Your task to perform on an android device: Empty the shopping cart on walmart. Search for "logitech g pro" on walmart, select the first entry, add it to the cart, then select checkout. Image 0: 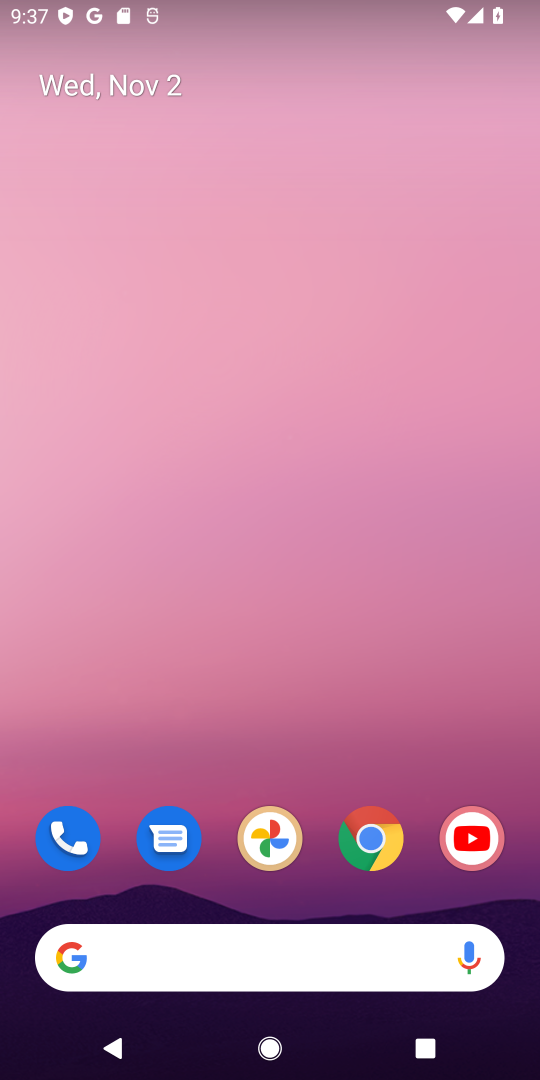
Step 0: click (360, 840)
Your task to perform on an android device: Empty the shopping cart on walmart. Search for "logitech g pro" on walmart, select the first entry, add it to the cart, then select checkout. Image 1: 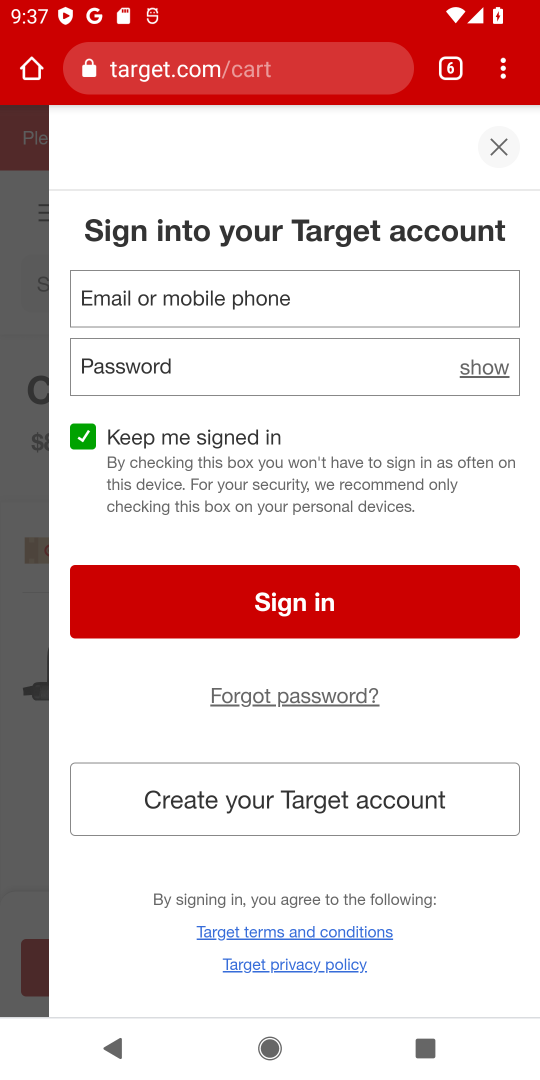
Step 1: click (447, 68)
Your task to perform on an android device: Empty the shopping cart on walmart. Search for "logitech g pro" on walmart, select the first entry, add it to the cart, then select checkout. Image 2: 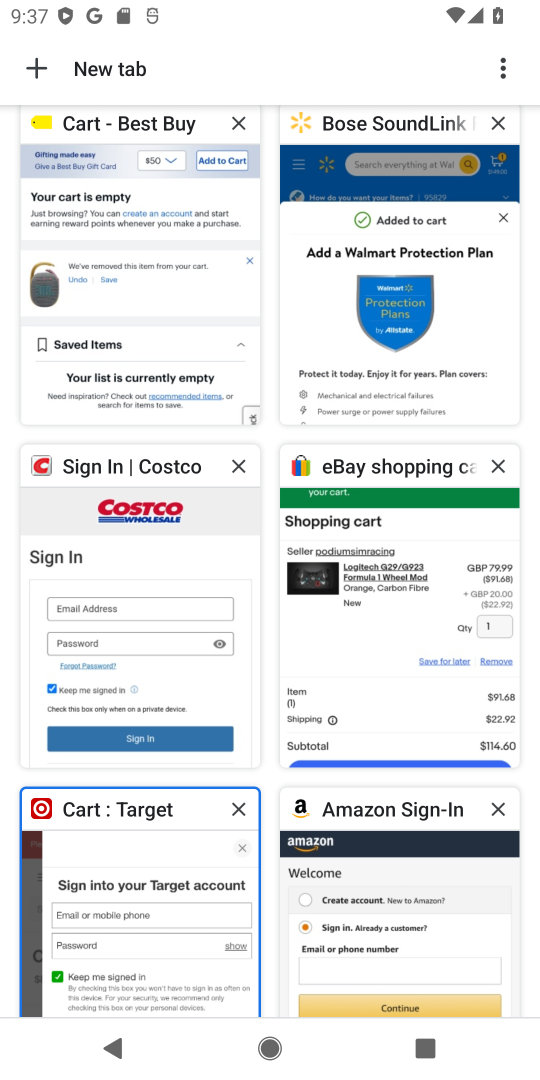
Step 2: click (456, 205)
Your task to perform on an android device: Empty the shopping cart on walmart. Search for "logitech g pro" on walmart, select the first entry, add it to the cart, then select checkout. Image 3: 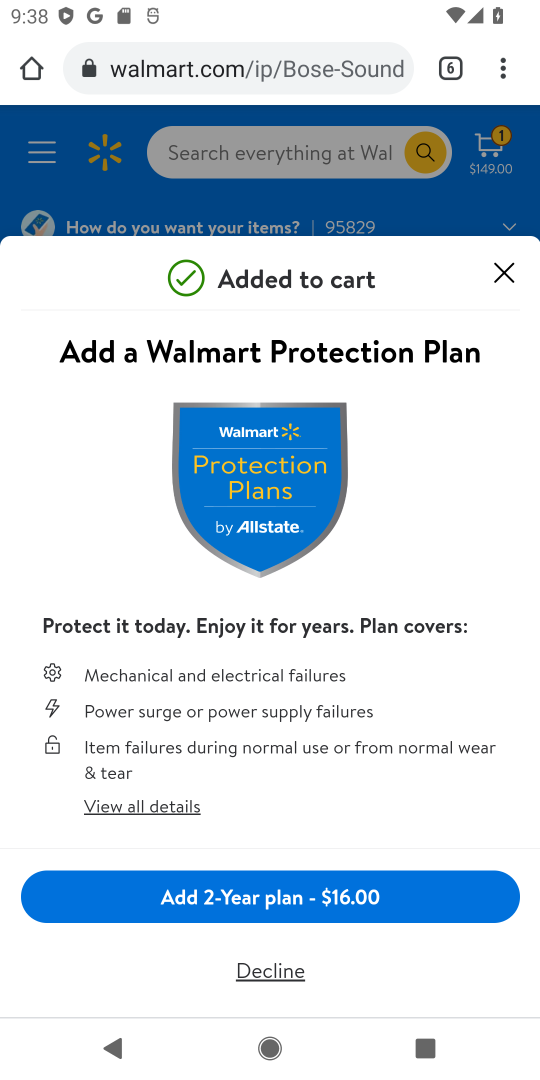
Step 3: click (492, 267)
Your task to perform on an android device: Empty the shopping cart on walmart. Search for "logitech g pro" on walmart, select the first entry, add it to the cart, then select checkout. Image 4: 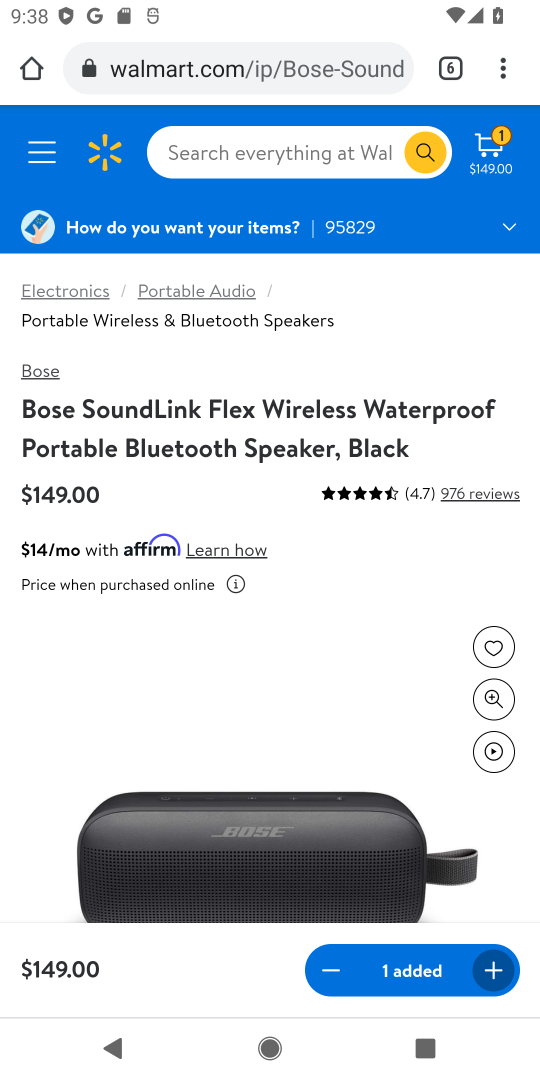
Step 4: click (178, 152)
Your task to perform on an android device: Empty the shopping cart on walmart. Search for "logitech g pro" on walmart, select the first entry, add it to the cart, then select checkout. Image 5: 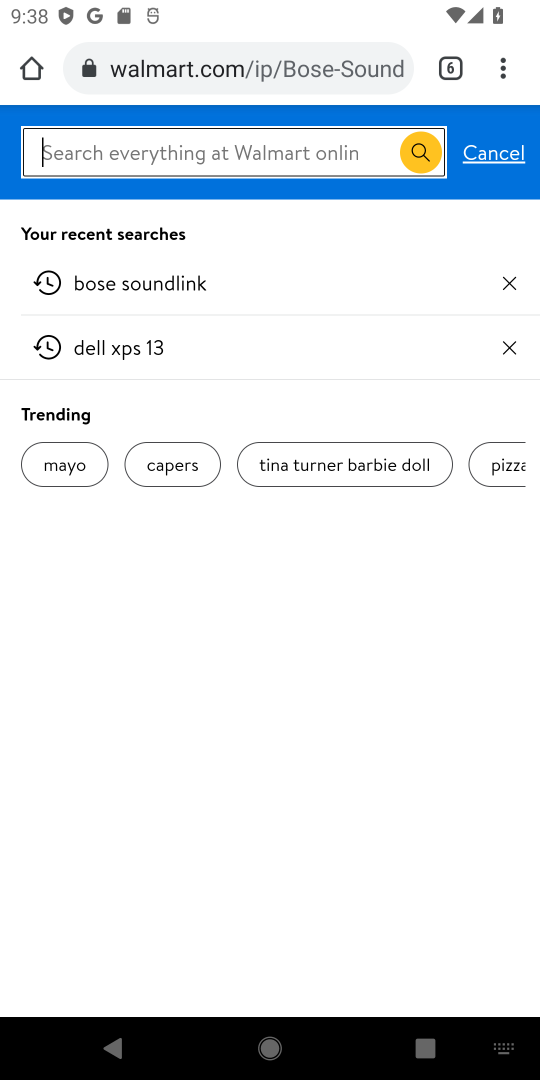
Step 5: type "logitech g pro"
Your task to perform on an android device: Empty the shopping cart on walmart. Search for "logitech g pro" on walmart, select the first entry, add it to the cart, then select checkout. Image 6: 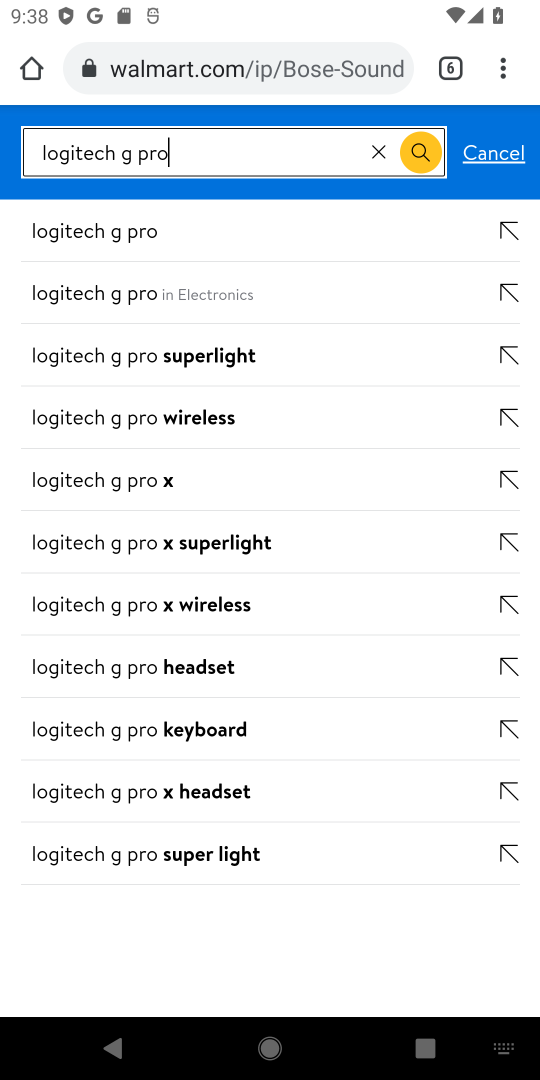
Step 6: click (181, 297)
Your task to perform on an android device: Empty the shopping cart on walmart. Search for "logitech g pro" on walmart, select the first entry, add it to the cart, then select checkout. Image 7: 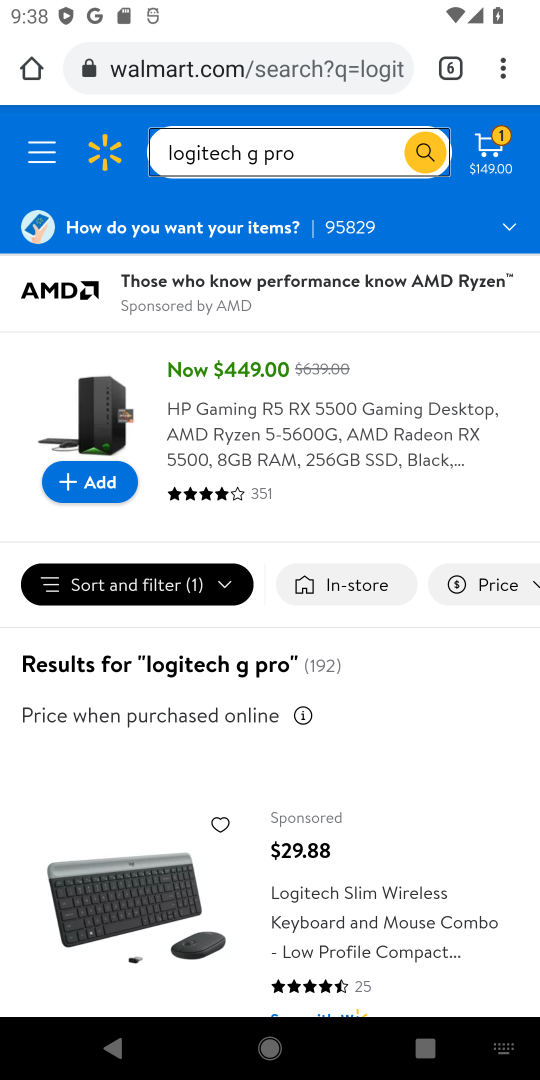
Step 7: drag from (377, 803) to (370, 542)
Your task to perform on an android device: Empty the shopping cart on walmart. Search for "logitech g pro" on walmart, select the first entry, add it to the cart, then select checkout. Image 8: 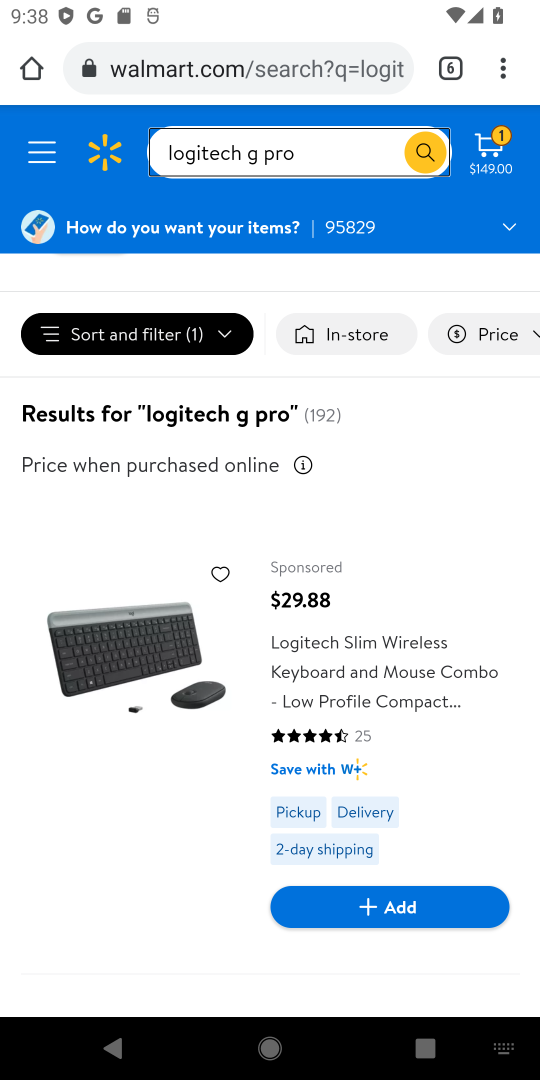
Step 8: click (391, 901)
Your task to perform on an android device: Empty the shopping cart on walmart. Search for "logitech g pro" on walmart, select the first entry, add it to the cart, then select checkout. Image 9: 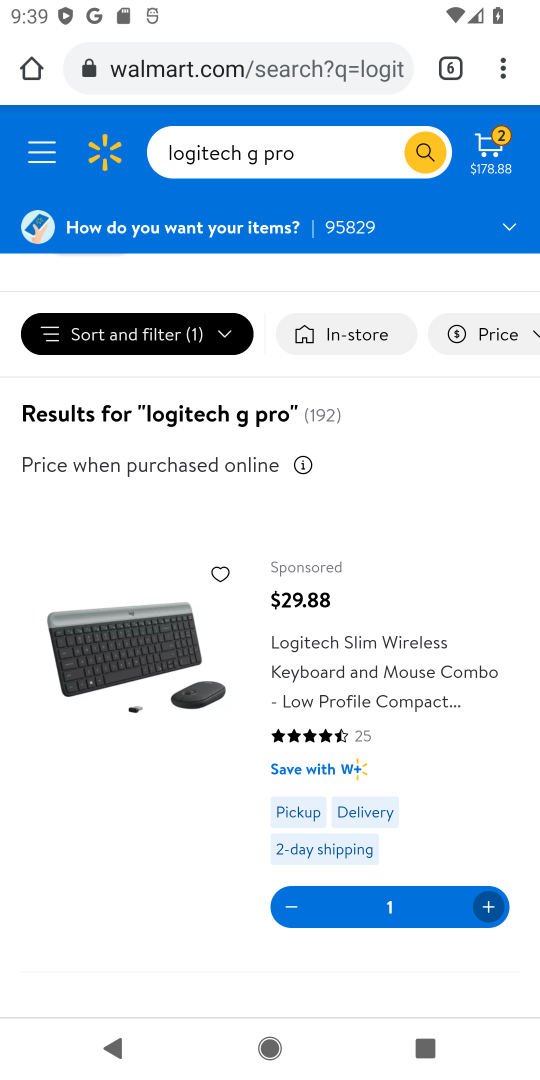
Step 9: task complete